Your task to perform on an android device: see tabs open on other devices in the chrome app Image 0: 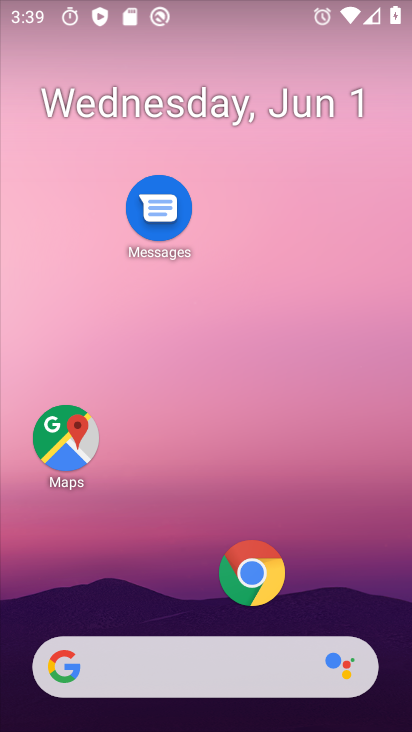
Step 0: click (242, 579)
Your task to perform on an android device: see tabs open on other devices in the chrome app Image 1: 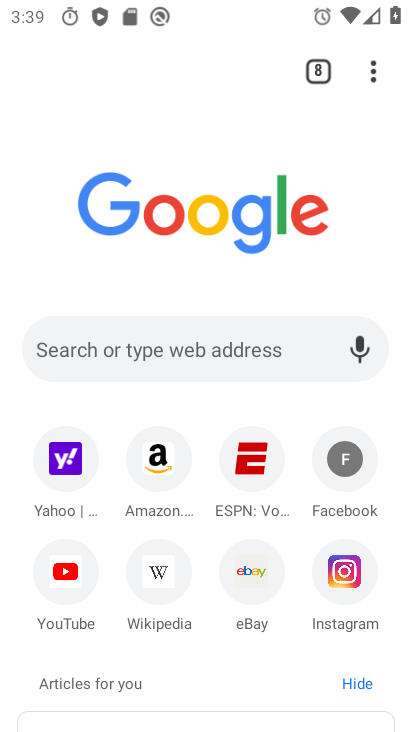
Step 1: task complete